Your task to perform on an android device: Open Google Chrome Image 0: 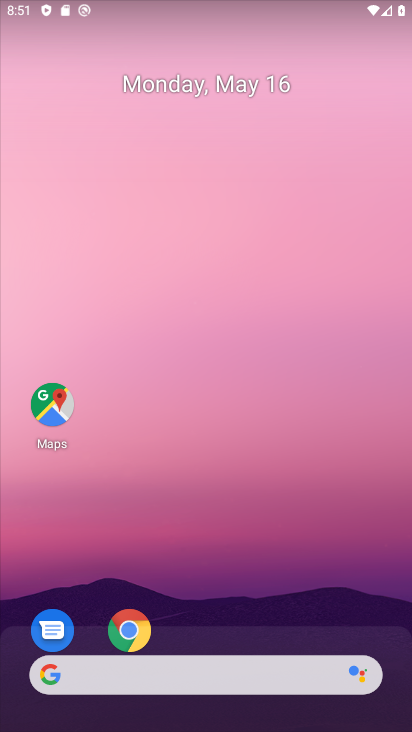
Step 0: drag from (278, 575) to (202, 230)
Your task to perform on an android device: Open Google Chrome Image 1: 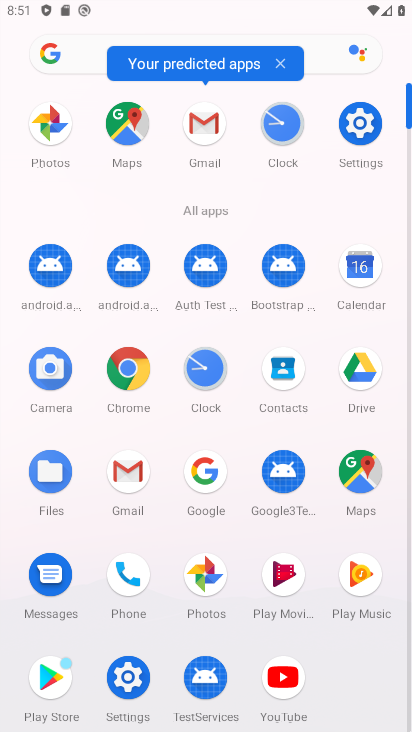
Step 1: drag from (294, 619) to (289, 76)
Your task to perform on an android device: Open Google Chrome Image 2: 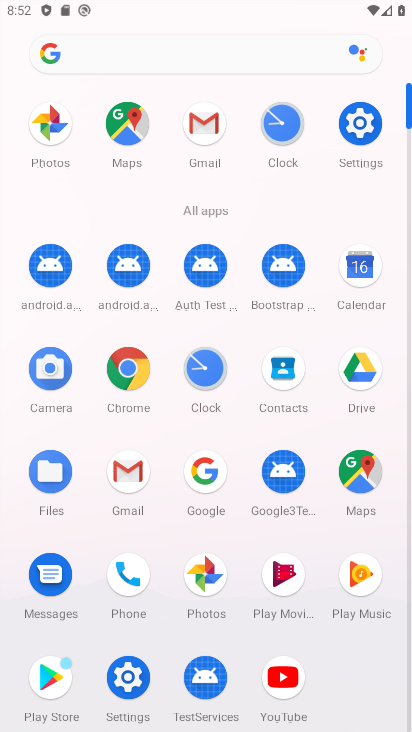
Step 2: click (135, 370)
Your task to perform on an android device: Open Google Chrome Image 3: 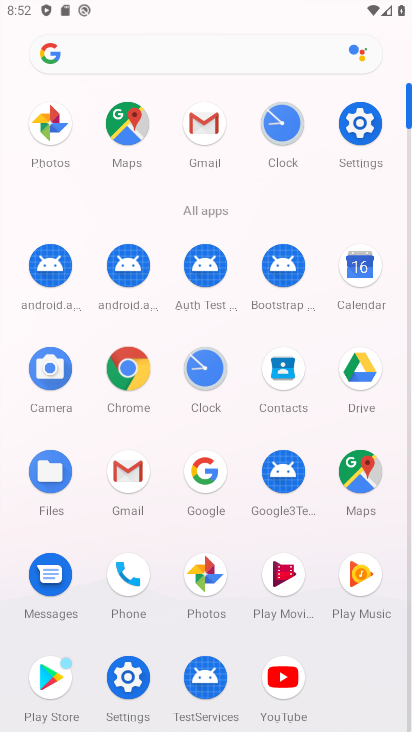
Step 3: click (138, 367)
Your task to perform on an android device: Open Google Chrome Image 4: 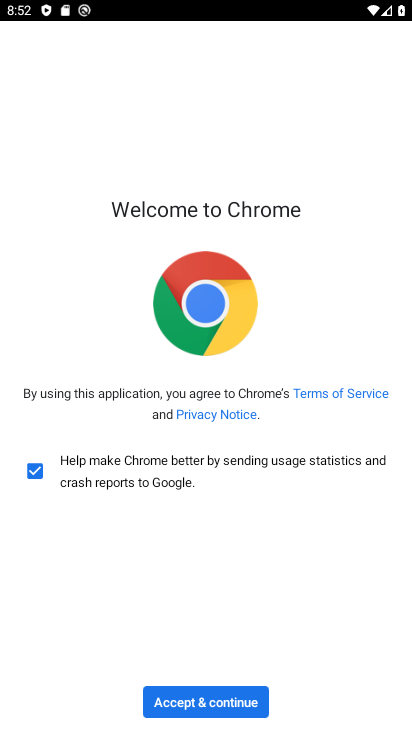
Step 4: click (210, 684)
Your task to perform on an android device: Open Google Chrome Image 5: 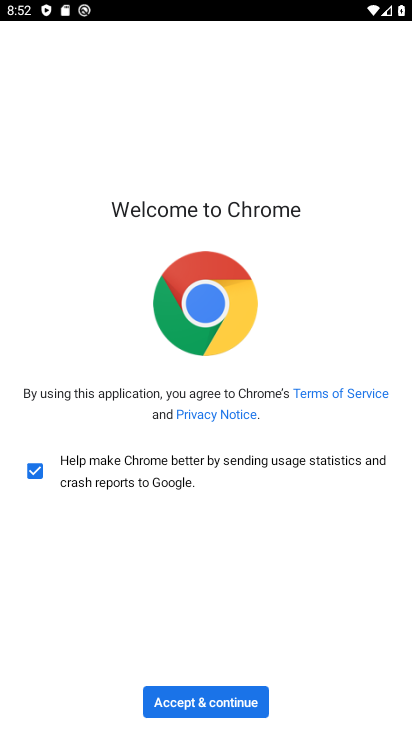
Step 5: click (204, 694)
Your task to perform on an android device: Open Google Chrome Image 6: 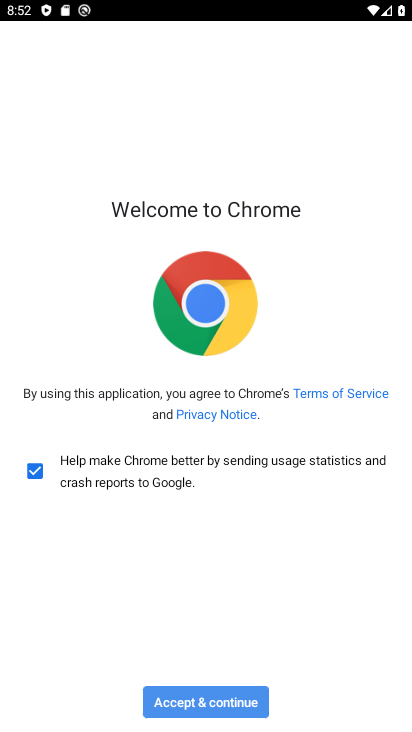
Step 6: click (204, 696)
Your task to perform on an android device: Open Google Chrome Image 7: 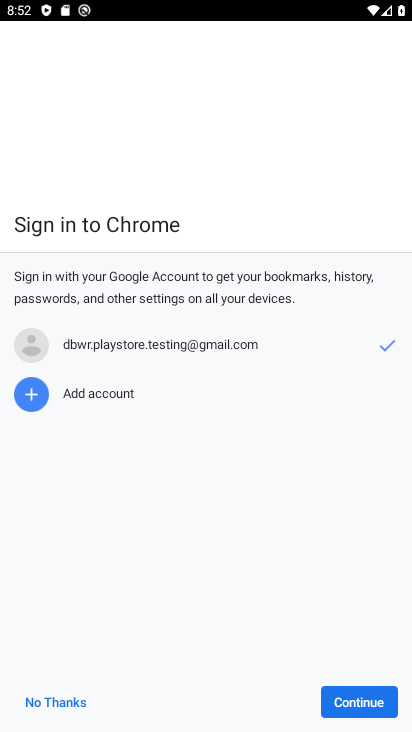
Step 7: click (204, 696)
Your task to perform on an android device: Open Google Chrome Image 8: 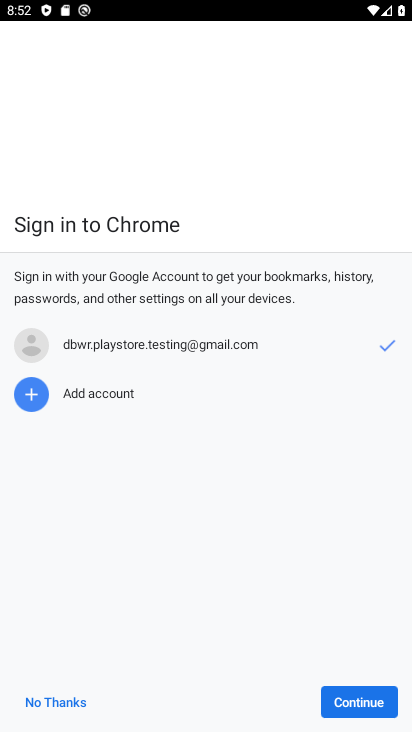
Step 8: click (207, 695)
Your task to perform on an android device: Open Google Chrome Image 9: 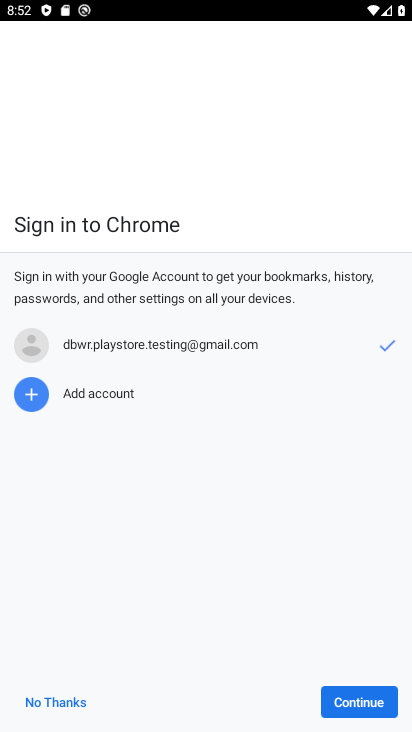
Step 9: click (335, 691)
Your task to perform on an android device: Open Google Chrome Image 10: 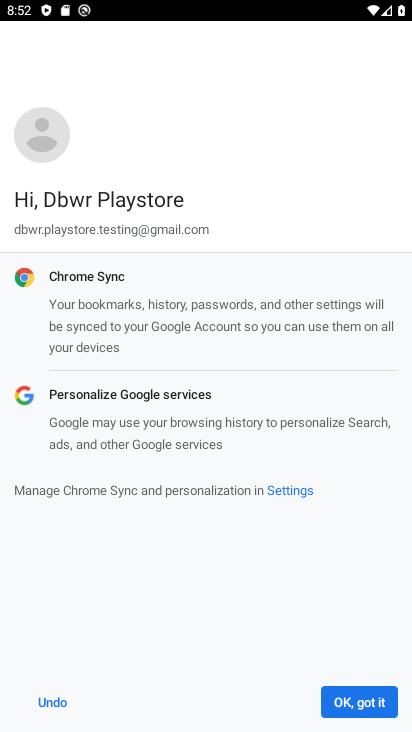
Step 10: click (340, 691)
Your task to perform on an android device: Open Google Chrome Image 11: 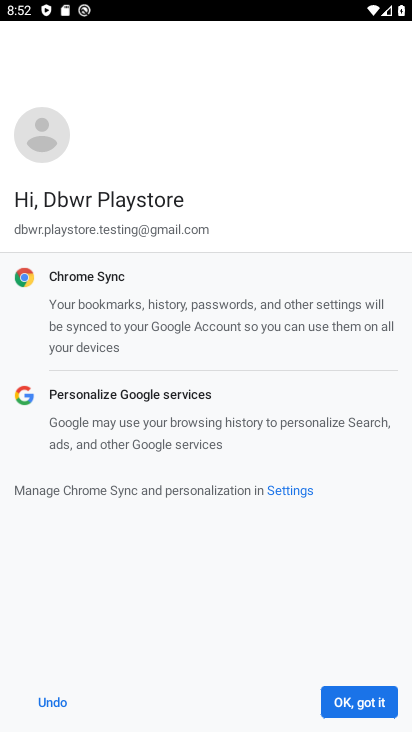
Step 11: click (346, 691)
Your task to perform on an android device: Open Google Chrome Image 12: 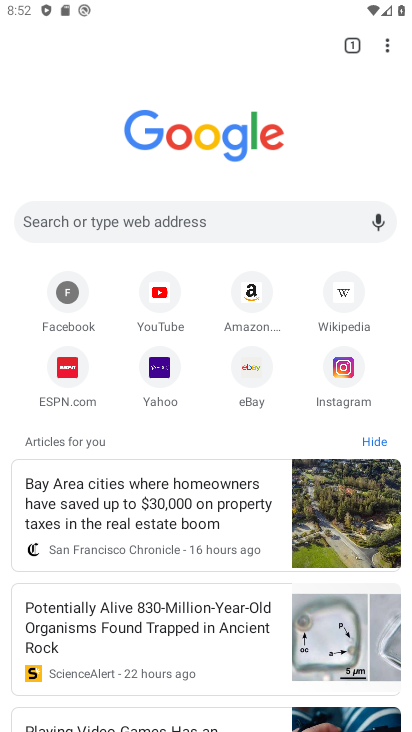
Step 12: task complete